Your task to perform on an android device: Open settings on Google Maps Image 0: 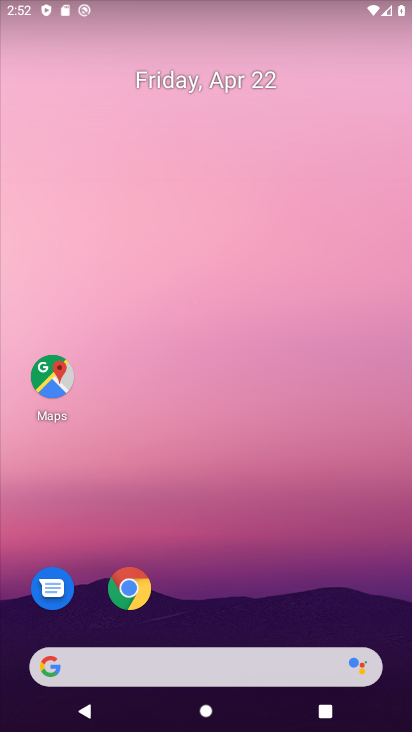
Step 0: click (54, 374)
Your task to perform on an android device: Open settings on Google Maps Image 1: 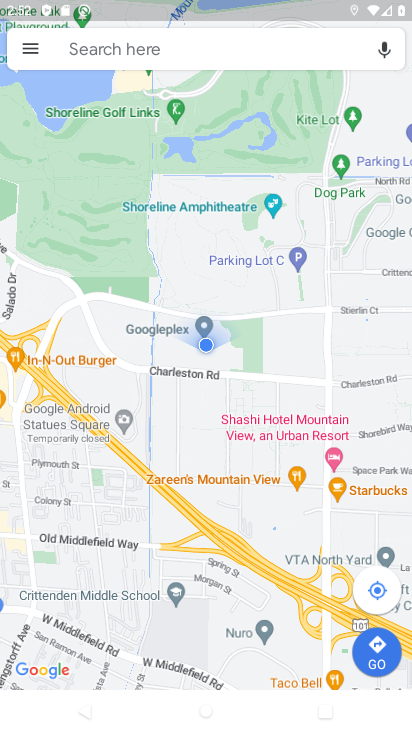
Step 1: click (26, 53)
Your task to perform on an android device: Open settings on Google Maps Image 2: 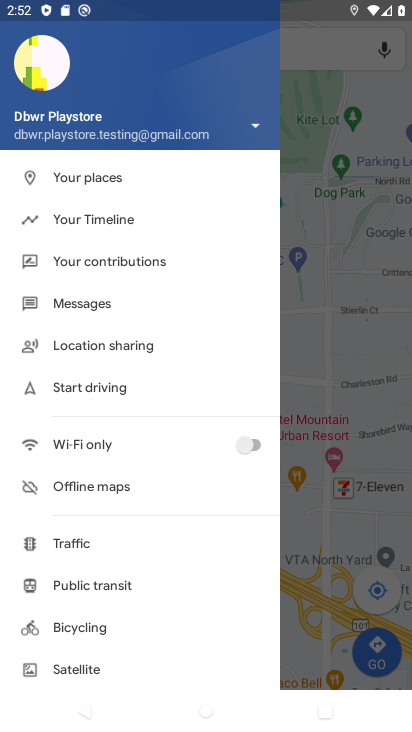
Step 2: drag from (169, 607) to (181, 281)
Your task to perform on an android device: Open settings on Google Maps Image 3: 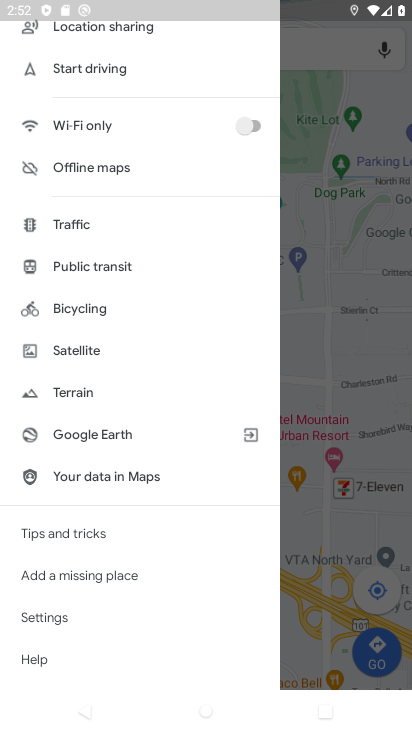
Step 3: drag from (206, 570) to (164, 186)
Your task to perform on an android device: Open settings on Google Maps Image 4: 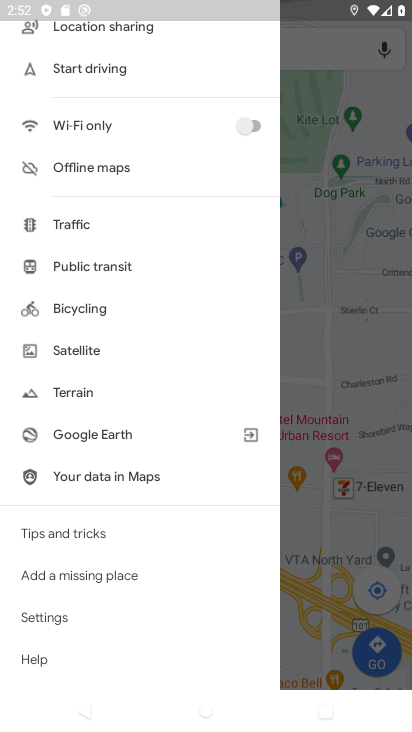
Step 4: click (49, 617)
Your task to perform on an android device: Open settings on Google Maps Image 5: 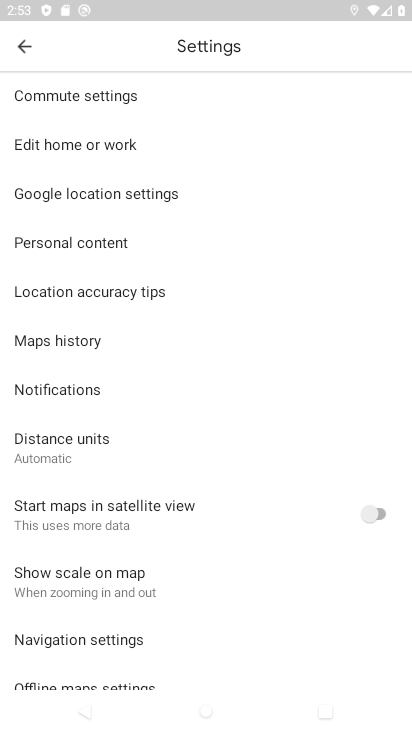
Step 5: task complete